Your task to perform on an android device: find snoozed emails in the gmail app Image 0: 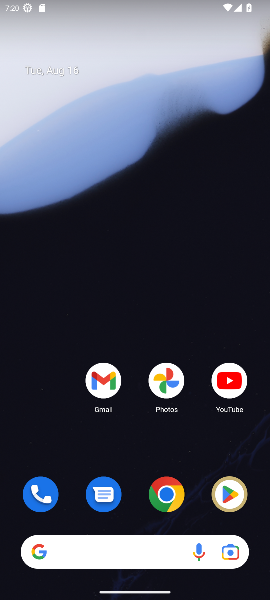
Step 0: drag from (63, 328) to (73, 139)
Your task to perform on an android device: find snoozed emails in the gmail app Image 1: 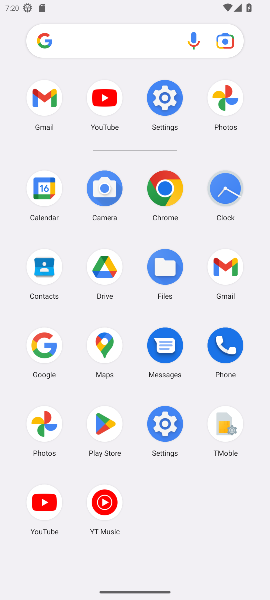
Step 1: click (226, 273)
Your task to perform on an android device: find snoozed emails in the gmail app Image 2: 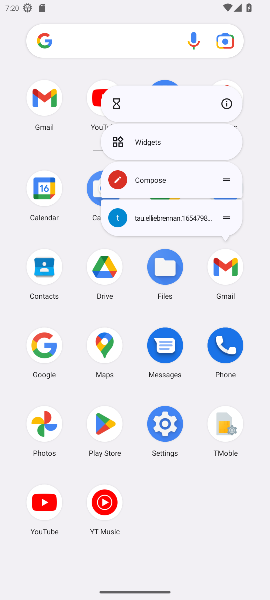
Step 2: click (225, 272)
Your task to perform on an android device: find snoozed emails in the gmail app Image 3: 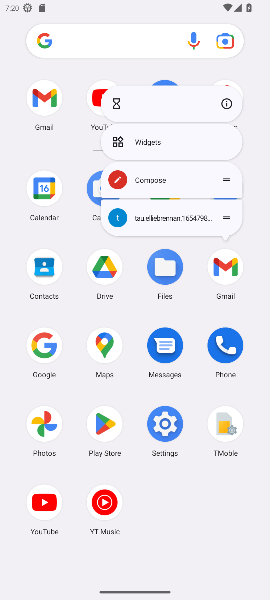
Step 3: click (225, 272)
Your task to perform on an android device: find snoozed emails in the gmail app Image 4: 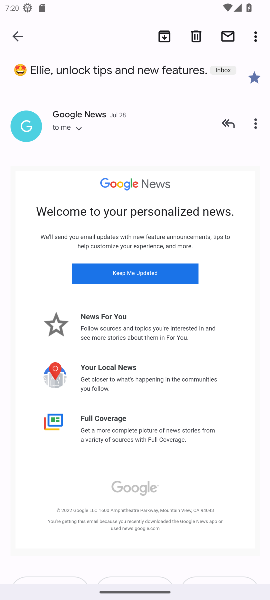
Step 4: task complete